Your task to perform on an android device: Search for "macbook" on bestbuy.com, select the first entry, and add it to the cart. Image 0: 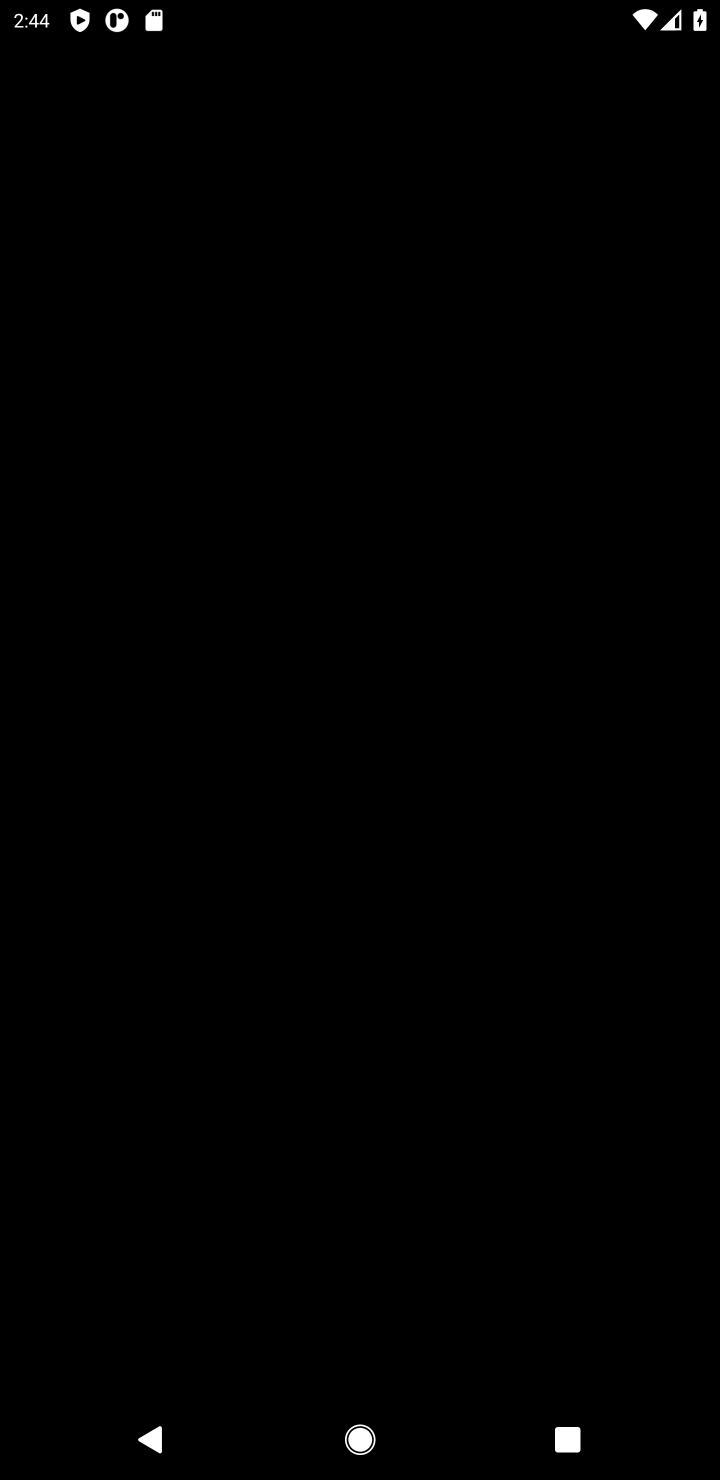
Step 0: press home button
Your task to perform on an android device: Search for "macbook" on bestbuy.com, select the first entry, and add it to the cart. Image 1: 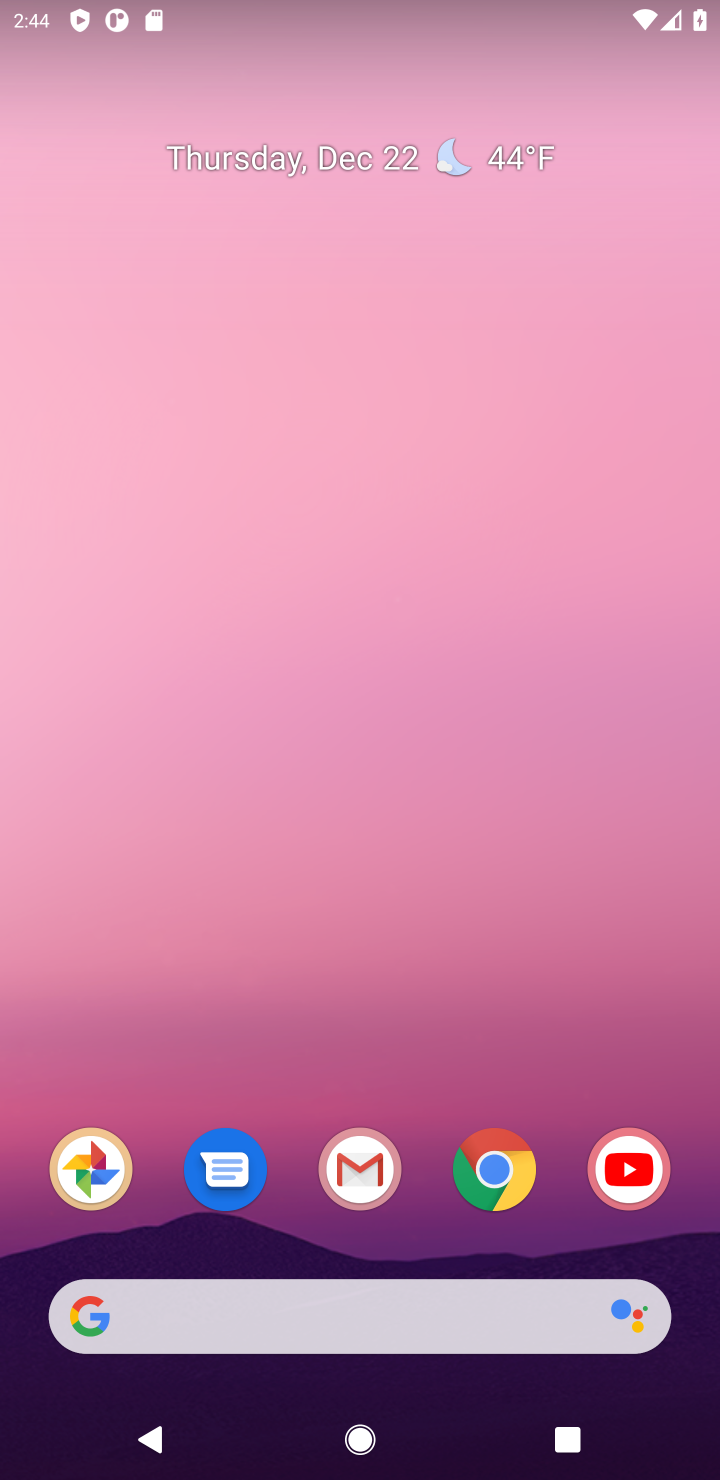
Step 1: click (487, 1185)
Your task to perform on an android device: Search for "macbook" on bestbuy.com, select the first entry, and add it to the cart. Image 2: 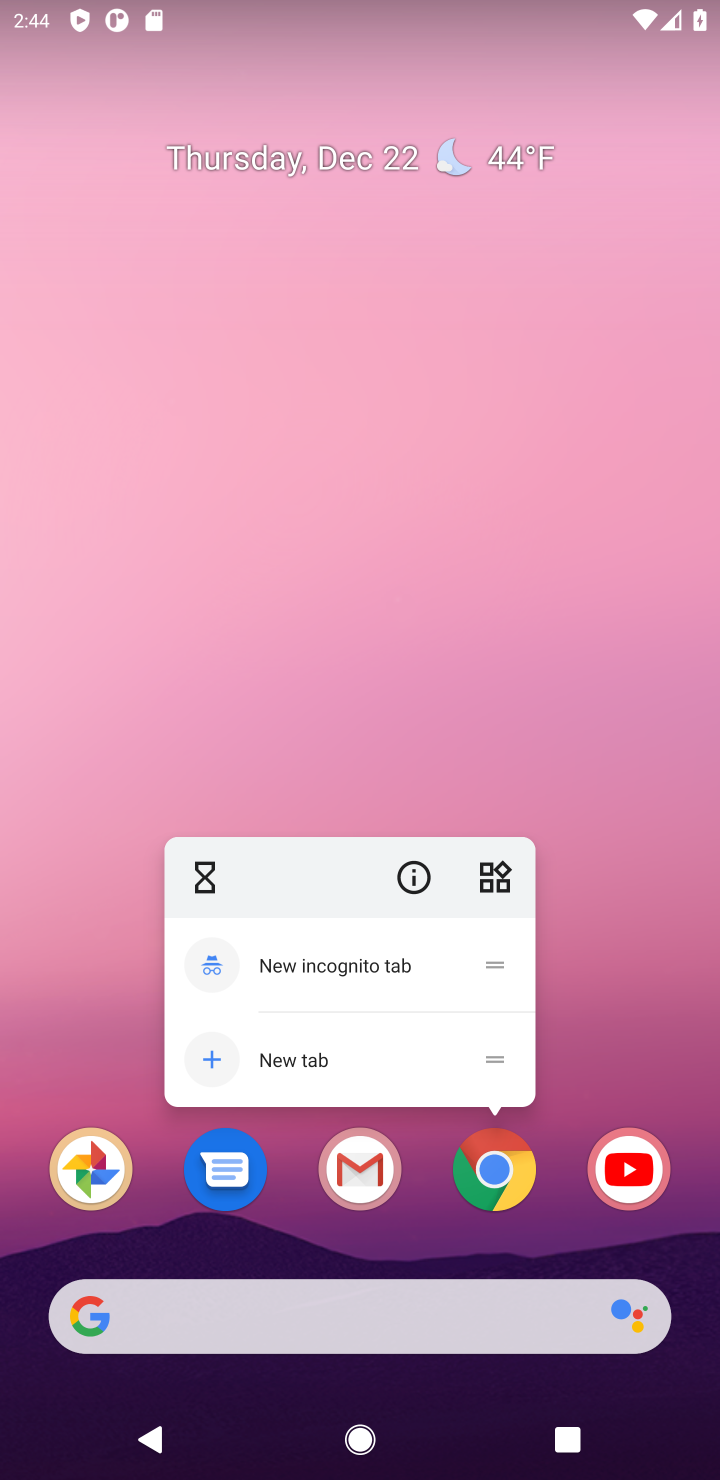
Step 2: click (496, 1179)
Your task to perform on an android device: Search for "macbook" on bestbuy.com, select the first entry, and add it to the cart. Image 3: 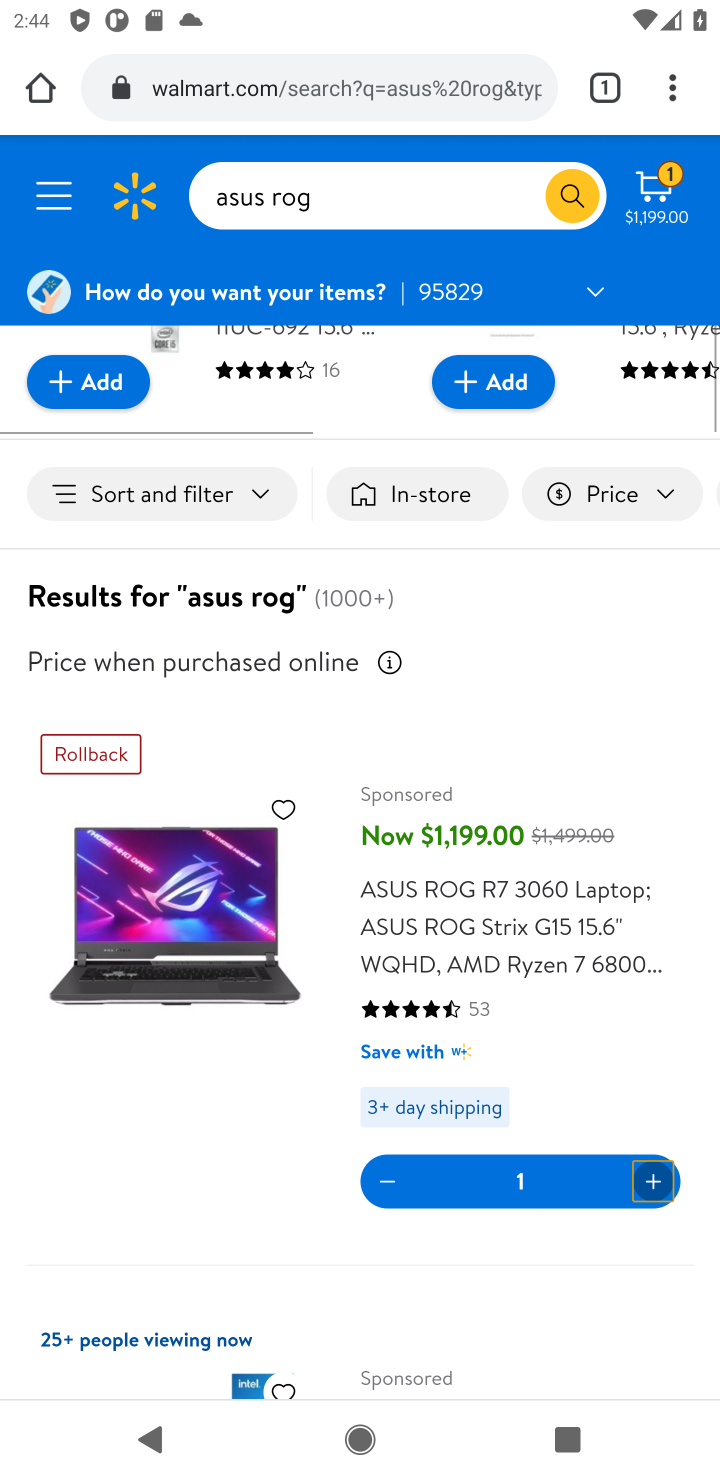
Step 3: click (299, 85)
Your task to perform on an android device: Search for "macbook" on bestbuy.com, select the first entry, and add it to the cart. Image 4: 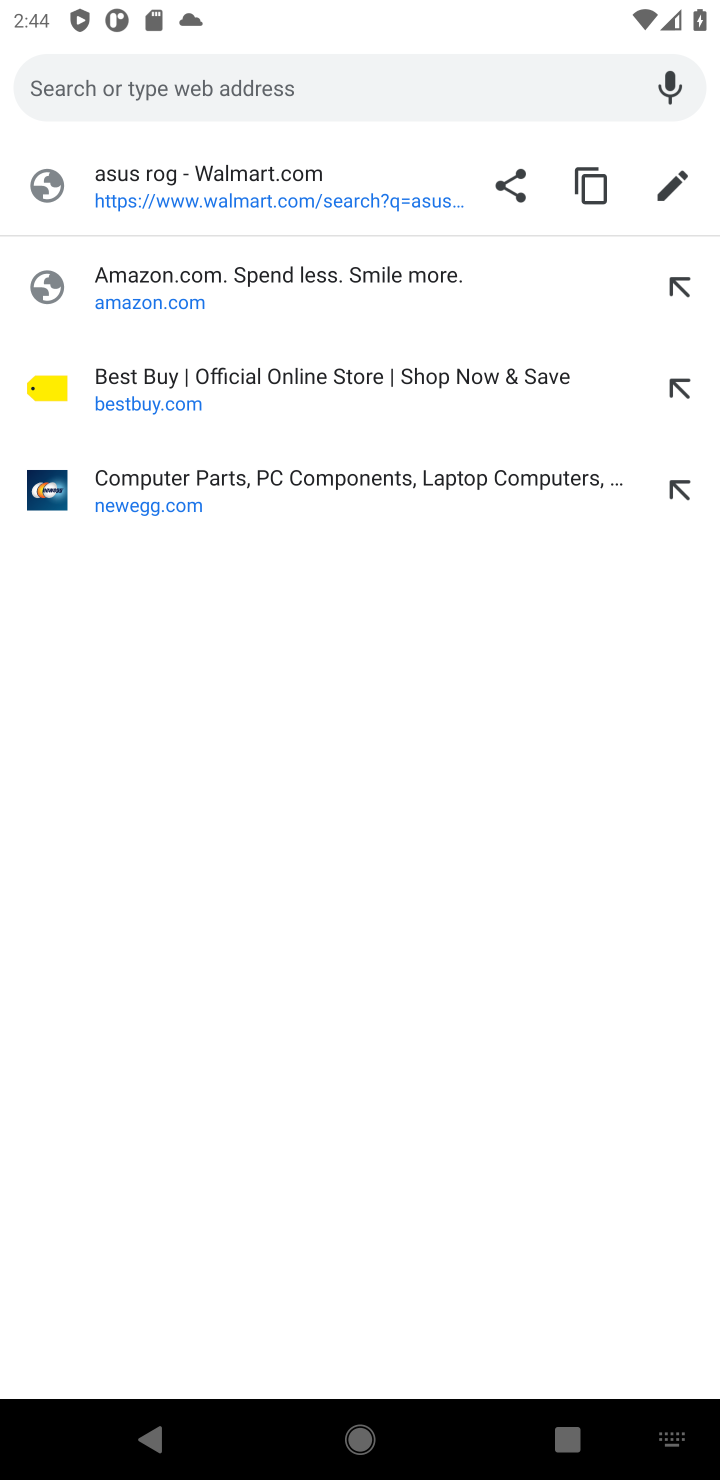
Step 4: click (124, 374)
Your task to perform on an android device: Search for "macbook" on bestbuy.com, select the first entry, and add it to the cart. Image 5: 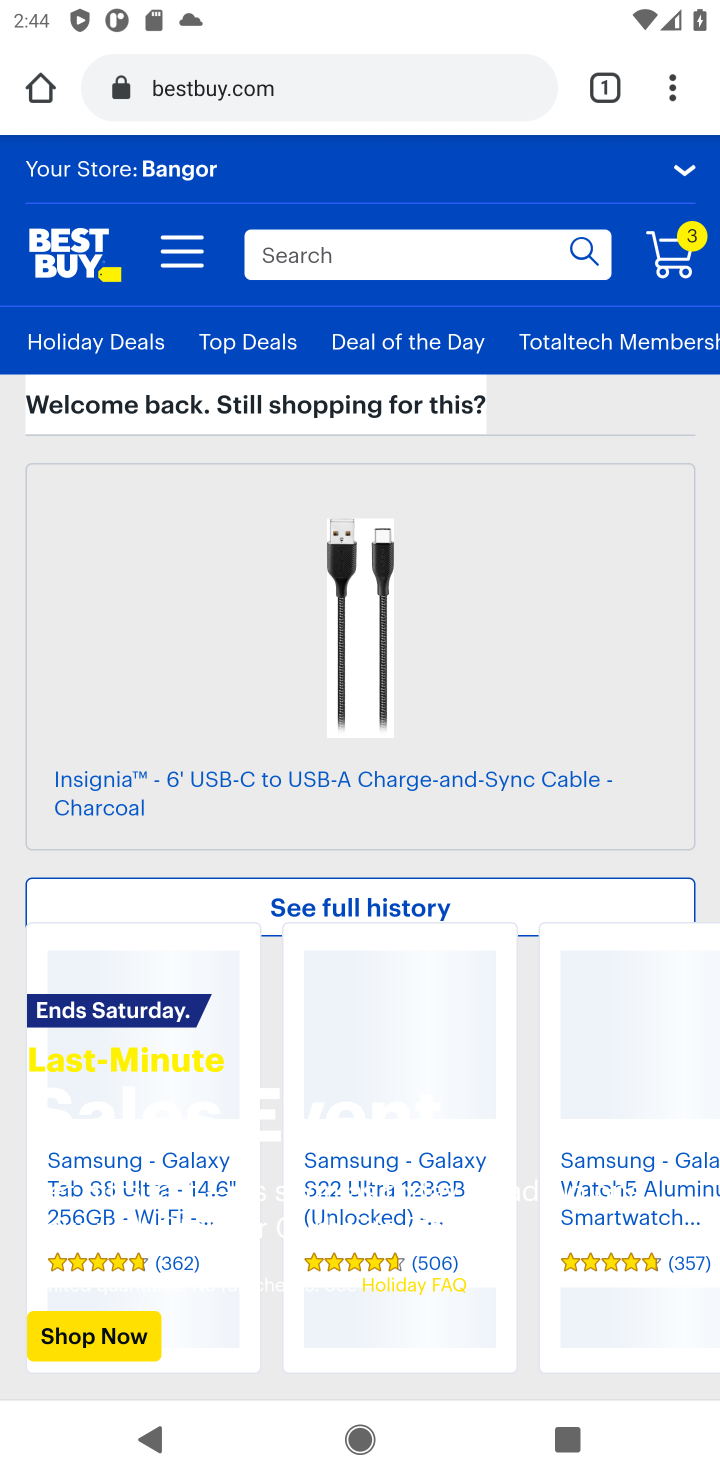
Step 5: click (326, 270)
Your task to perform on an android device: Search for "macbook" on bestbuy.com, select the first entry, and add it to the cart. Image 6: 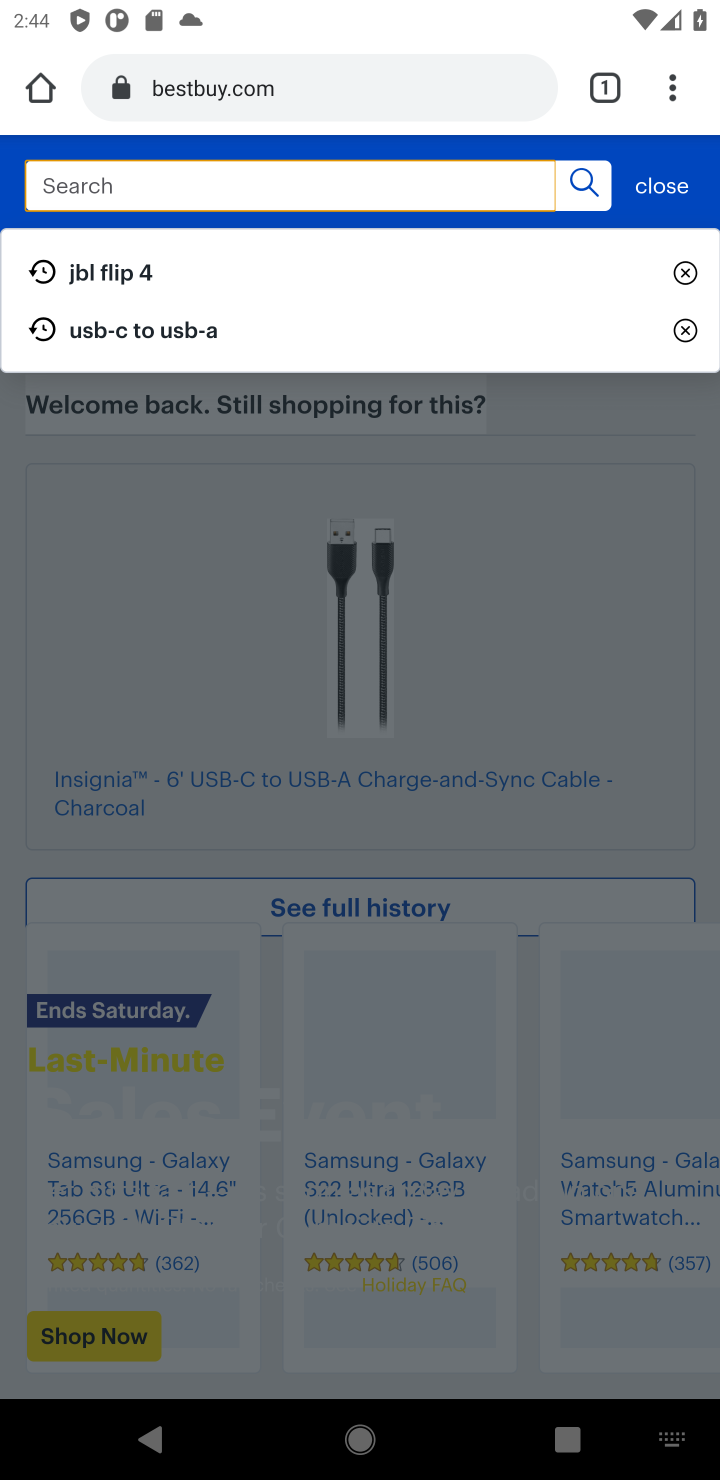
Step 6: type "macbook"
Your task to perform on an android device: Search for "macbook" on bestbuy.com, select the first entry, and add it to the cart. Image 7: 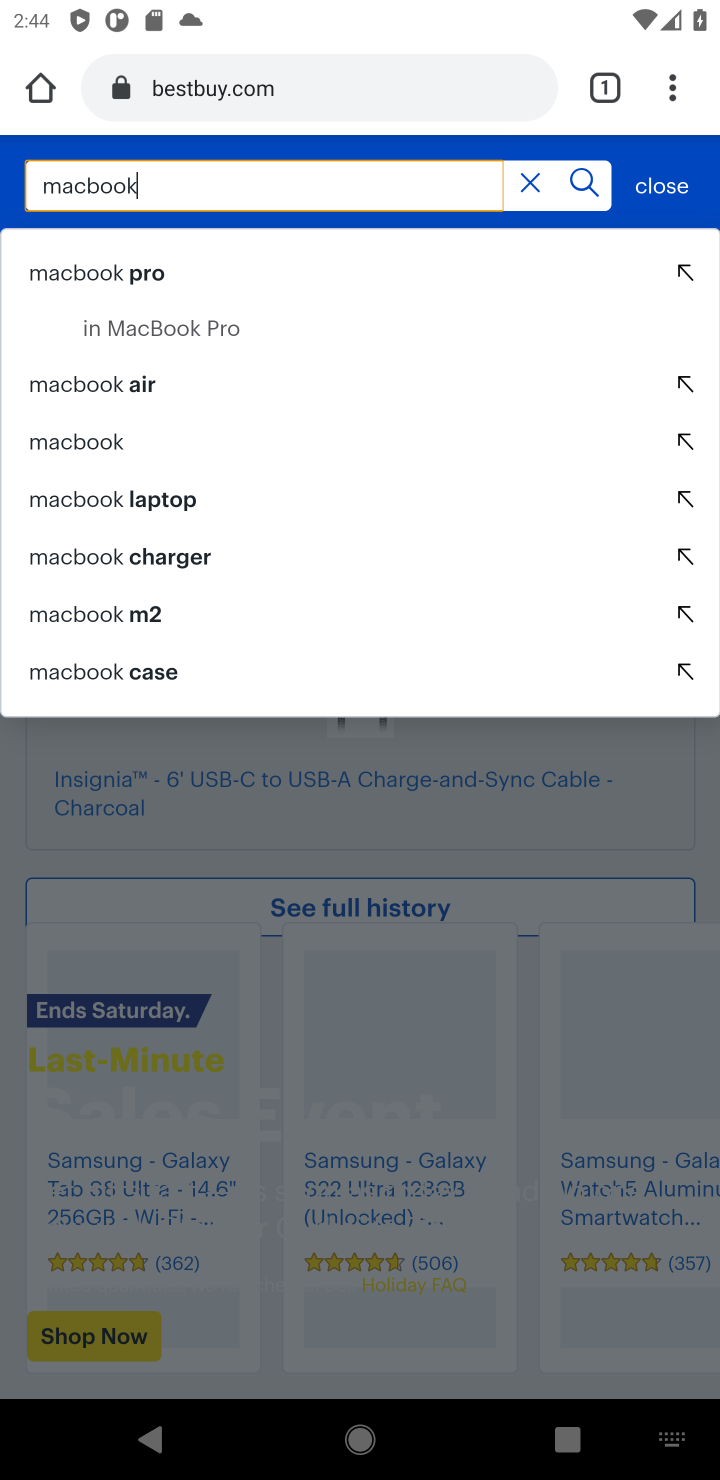
Step 7: click (70, 446)
Your task to perform on an android device: Search for "macbook" on bestbuy.com, select the first entry, and add it to the cart. Image 8: 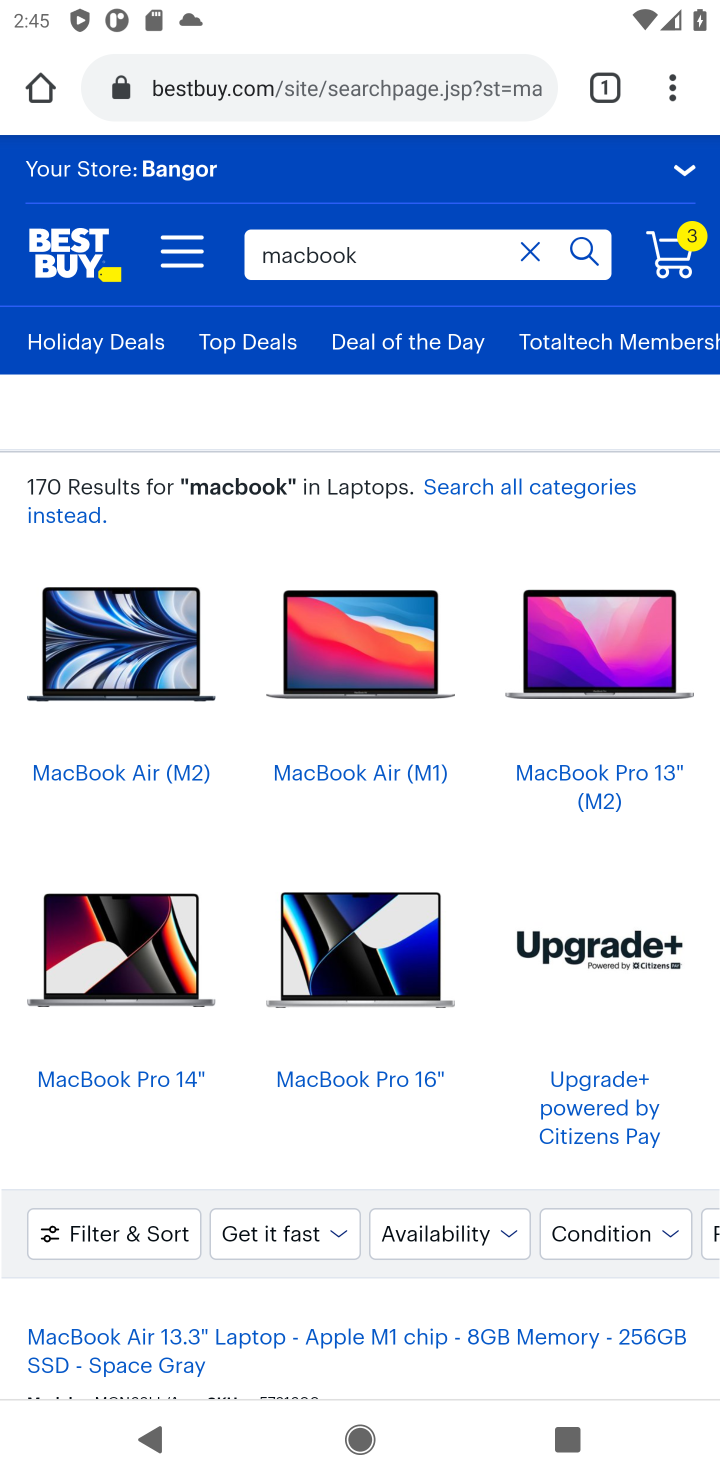
Step 8: drag from (282, 923) to (262, 485)
Your task to perform on an android device: Search for "macbook" on bestbuy.com, select the first entry, and add it to the cart. Image 9: 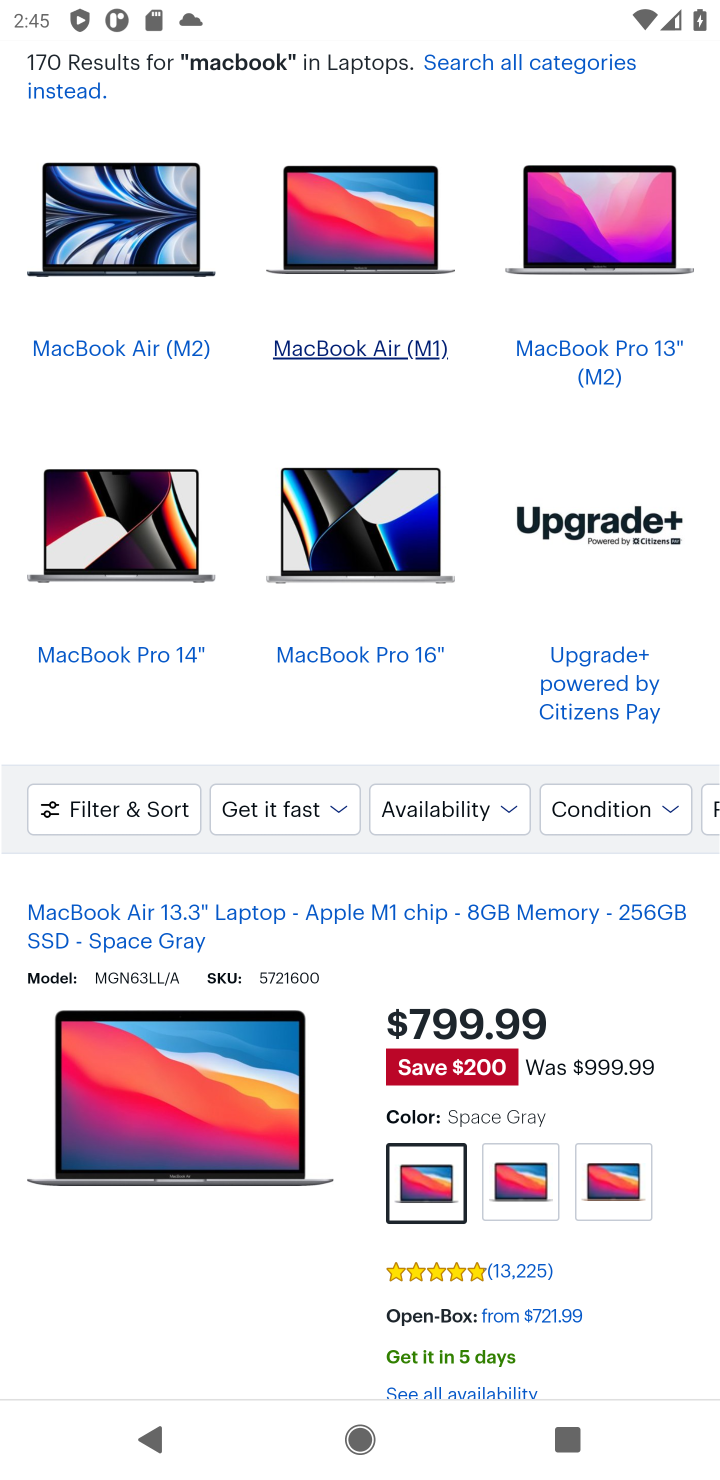
Step 9: drag from (220, 879) to (189, 437)
Your task to perform on an android device: Search for "macbook" on bestbuy.com, select the first entry, and add it to the cart. Image 10: 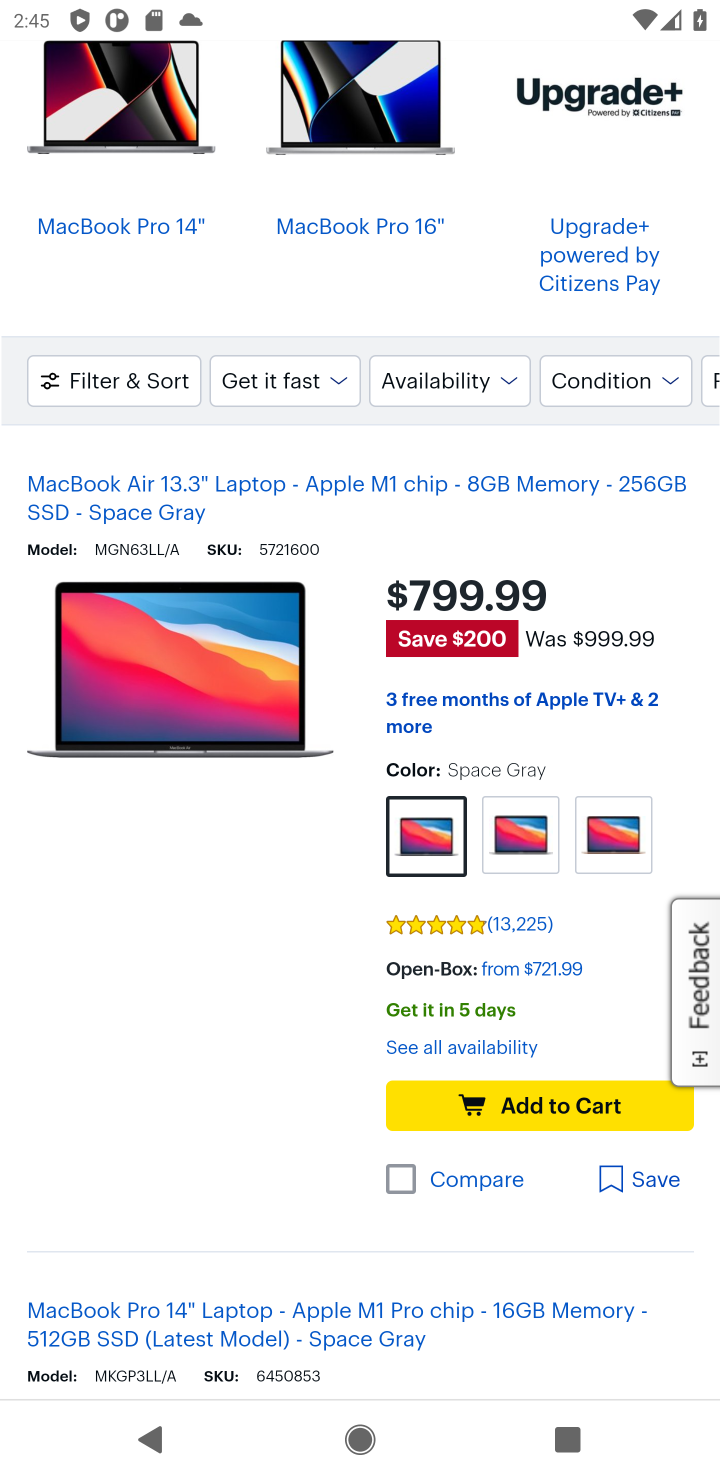
Step 10: click (525, 1100)
Your task to perform on an android device: Search for "macbook" on bestbuy.com, select the first entry, and add it to the cart. Image 11: 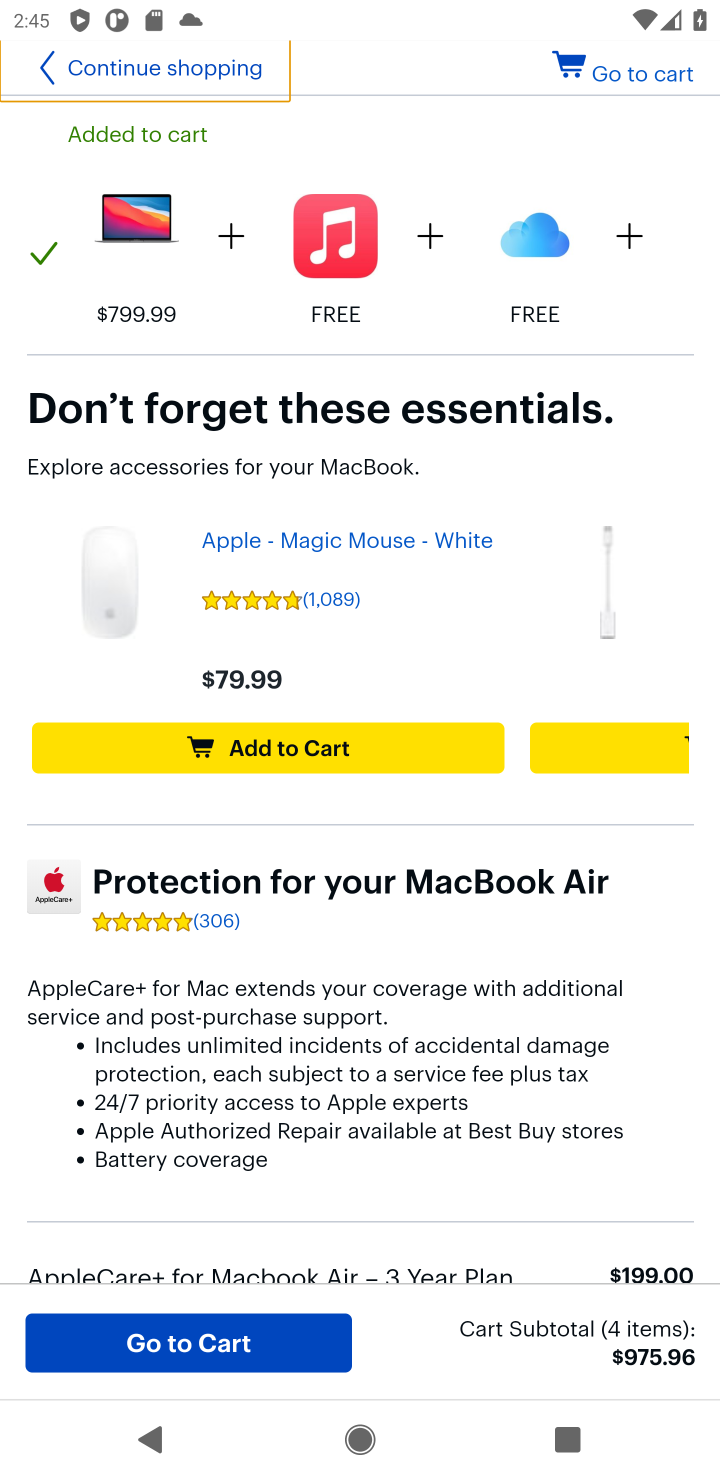
Step 11: task complete